Your task to perform on an android device: toggle priority inbox in the gmail app Image 0: 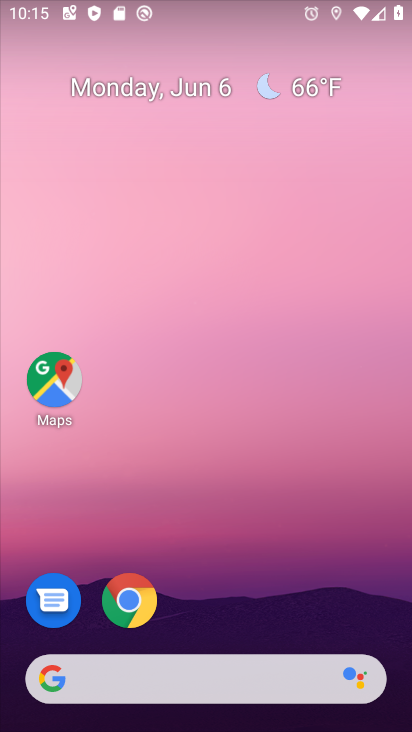
Step 0: drag from (95, 452) to (248, 127)
Your task to perform on an android device: toggle priority inbox in the gmail app Image 1: 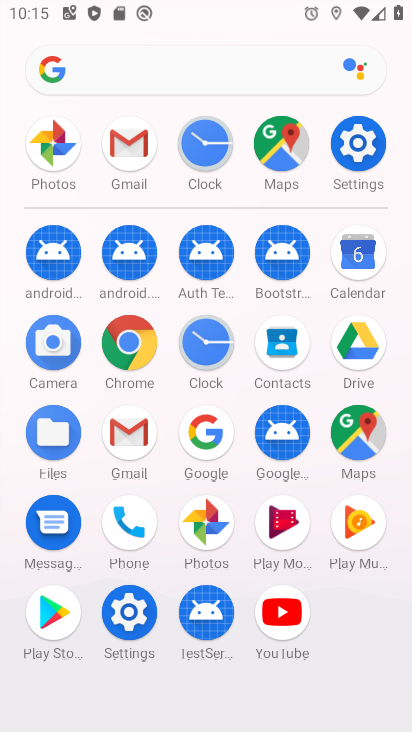
Step 1: click (127, 153)
Your task to perform on an android device: toggle priority inbox in the gmail app Image 2: 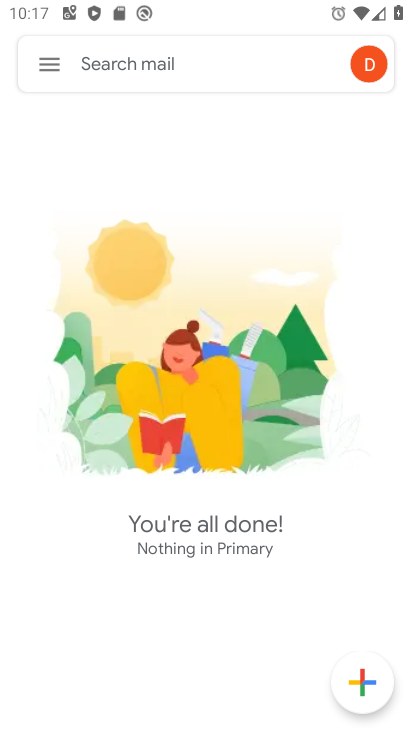
Step 2: press home button
Your task to perform on an android device: toggle priority inbox in the gmail app Image 3: 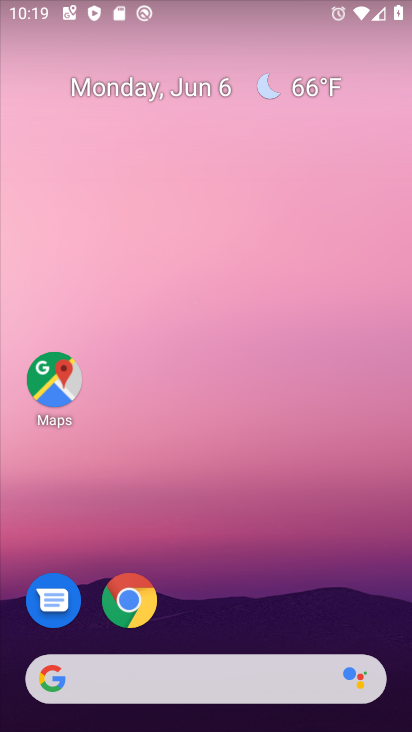
Step 3: drag from (46, 587) to (274, 179)
Your task to perform on an android device: toggle priority inbox in the gmail app Image 4: 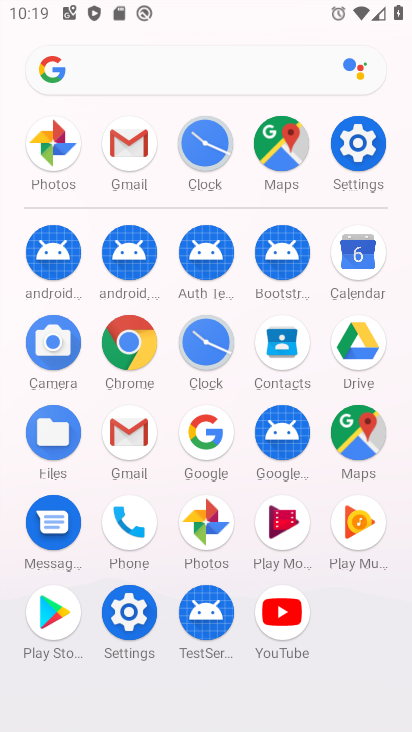
Step 4: click (116, 435)
Your task to perform on an android device: toggle priority inbox in the gmail app Image 5: 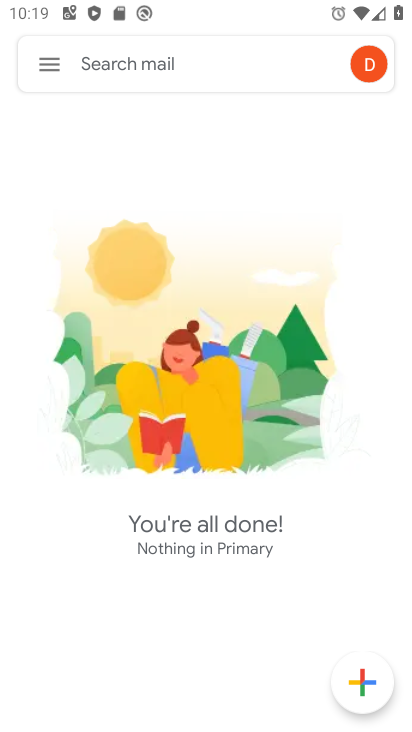
Step 5: click (51, 61)
Your task to perform on an android device: toggle priority inbox in the gmail app Image 6: 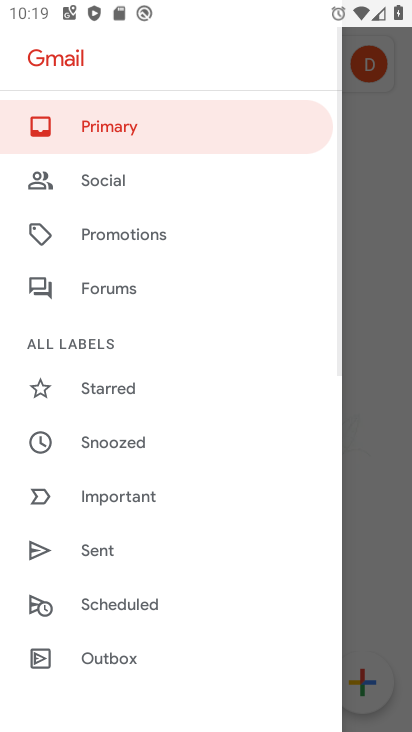
Step 6: drag from (114, 665) to (238, 152)
Your task to perform on an android device: toggle priority inbox in the gmail app Image 7: 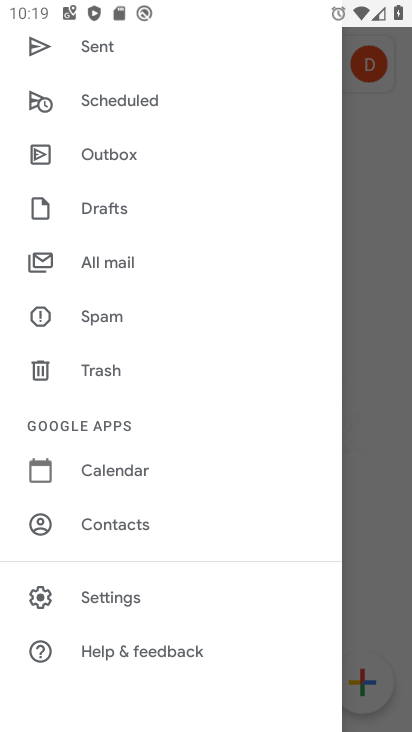
Step 7: click (134, 599)
Your task to perform on an android device: toggle priority inbox in the gmail app Image 8: 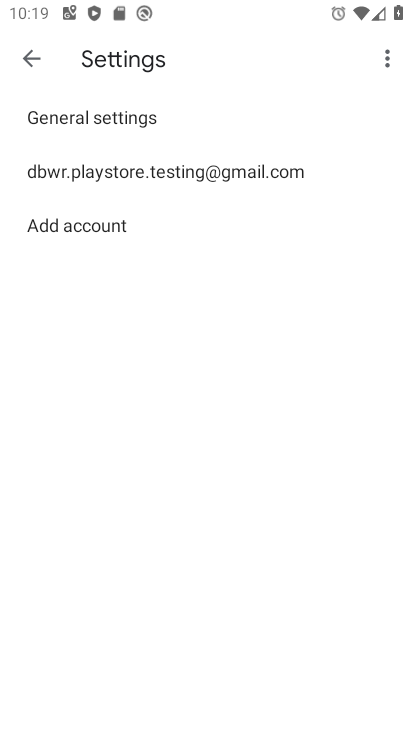
Step 8: click (111, 160)
Your task to perform on an android device: toggle priority inbox in the gmail app Image 9: 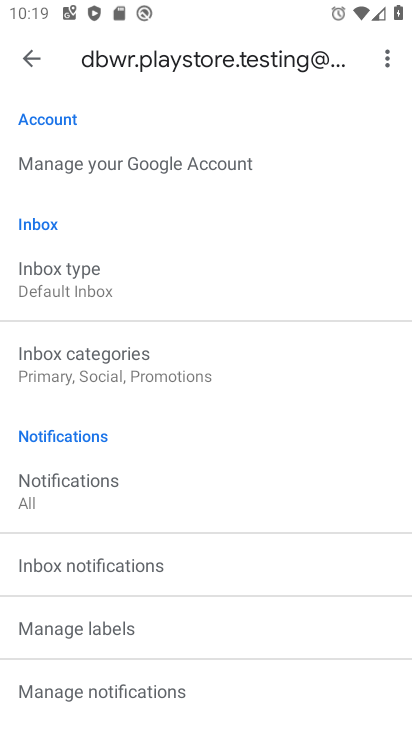
Step 9: click (98, 283)
Your task to perform on an android device: toggle priority inbox in the gmail app Image 10: 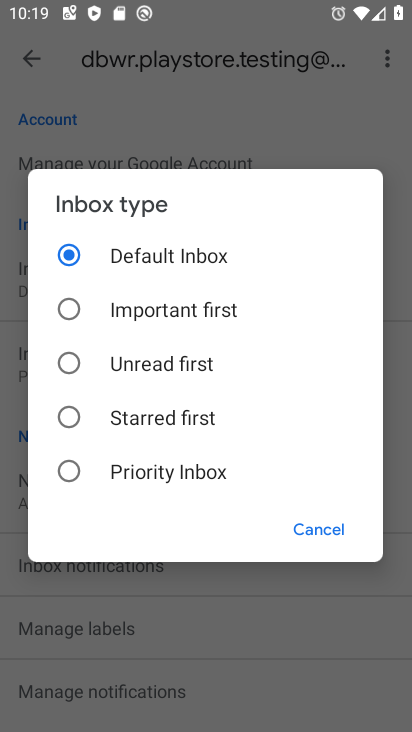
Step 10: click (159, 475)
Your task to perform on an android device: toggle priority inbox in the gmail app Image 11: 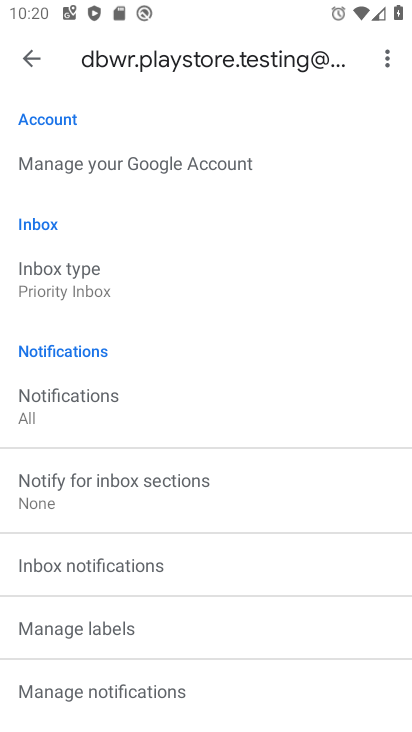
Step 11: task complete